Your task to perform on an android device: check google app version Image 0: 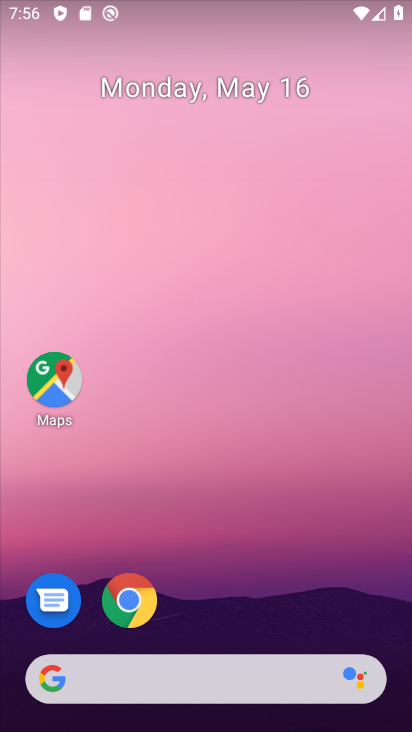
Step 0: click (129, 600)
Your task to perform on an android device: check google app version Image 1: 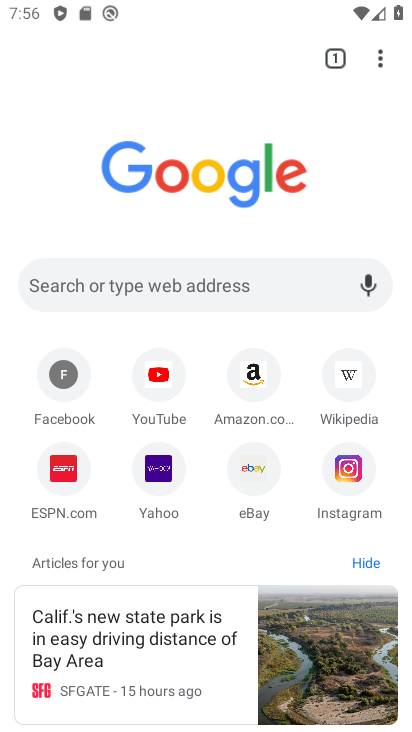
Step 1: click (379, 62)
Your task to perform on an android device: check google app version Image 2: 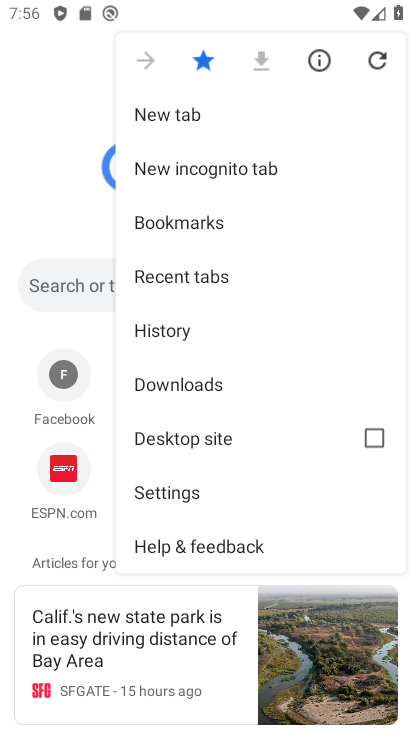
Step 2: click (188, 492)
Your task to perform on an android device: check google app version Image 3: 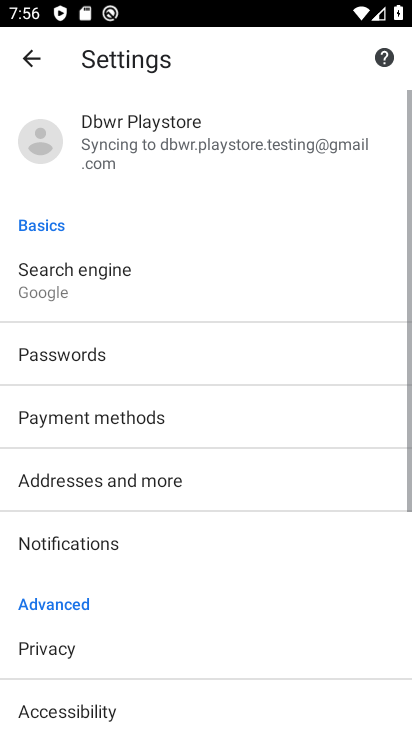
Step 3: drag from (256, 419) to (284, 220)
Your task to perform on an android device: check google app version Image 4: 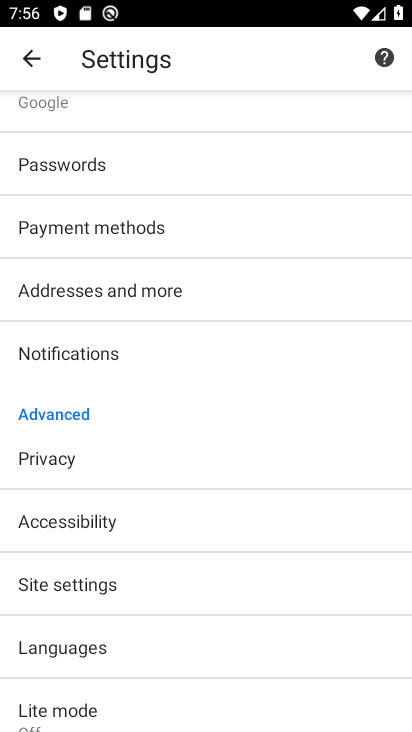
Step 4: drag from (236, 672) to (268, 258)
Your task to perform on an android device: check google app version Image 5: 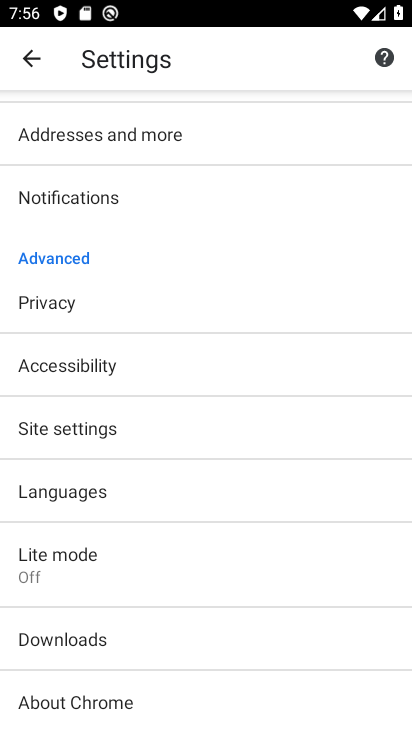
Step 5: click (57, 706)
Your task to perform on an android device: check google app version Image 6: 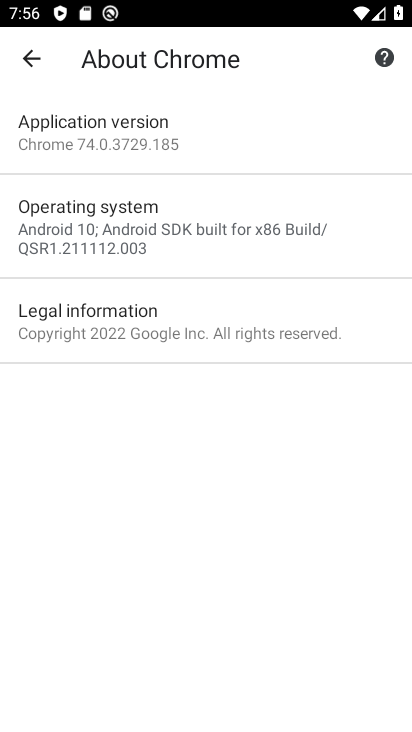
Step 6: click (73, 132)
Your task to perform on an android device: check google app version Image 7: 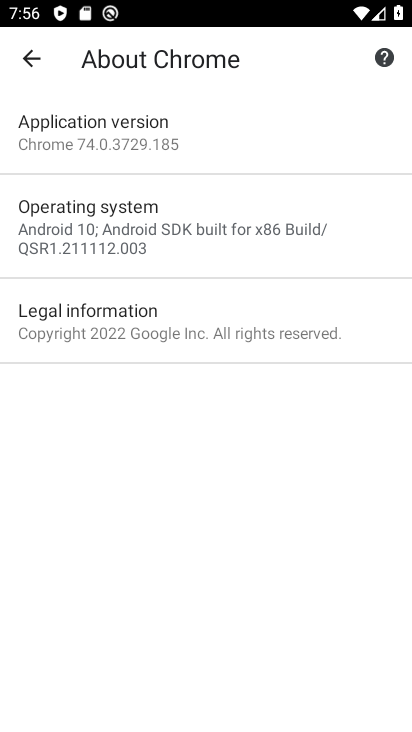
Step 7: task complete